Your task to perform on an android device: Go to Reddit.com Image 0: 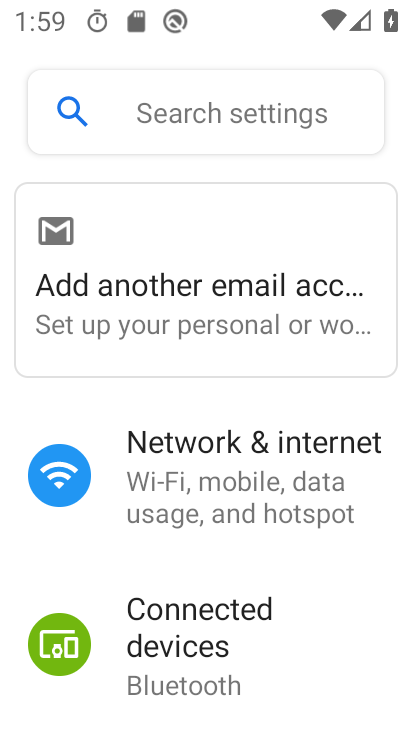
Step 0: press home button
Your task to perform on an android device: Go to Reddit.com Image 1: 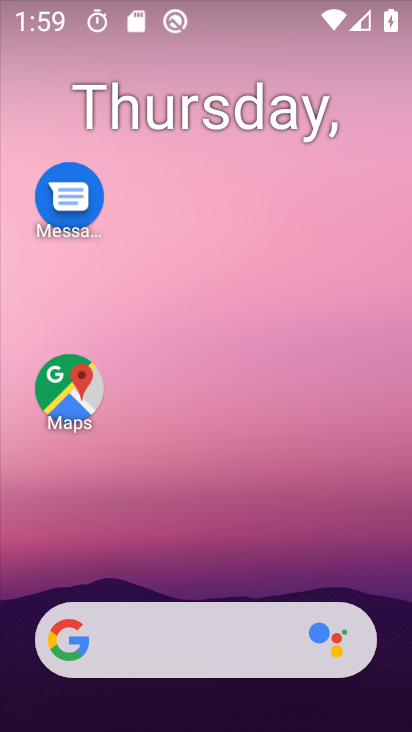
Step 1: drag from (138, 569) to (239, 160)
Your task to perform on an android device: Go to Reddit.com Image 2: 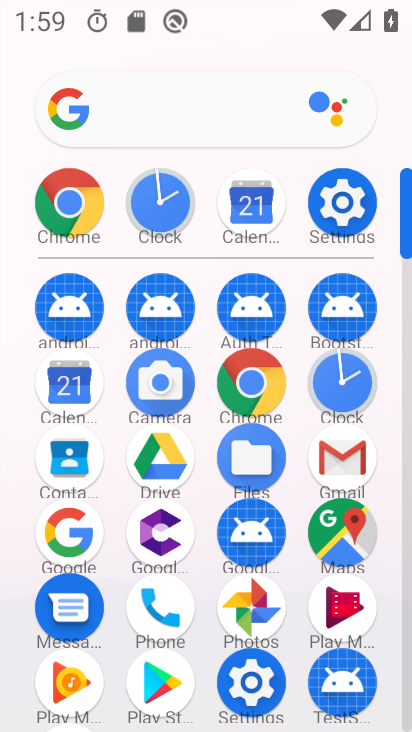
Step 2: click (66, 203)
Your task to perform on an android device: Go to Reddit.com Image 3: 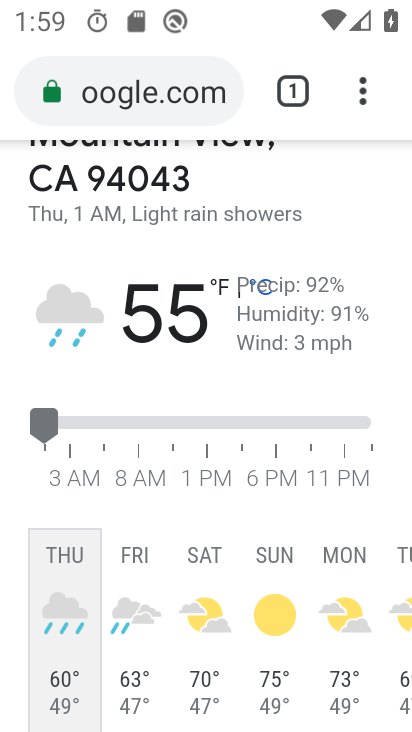
Step 3: click (158, 95)
Your task to perform on an android device: Go to Reddit.com Image 4: 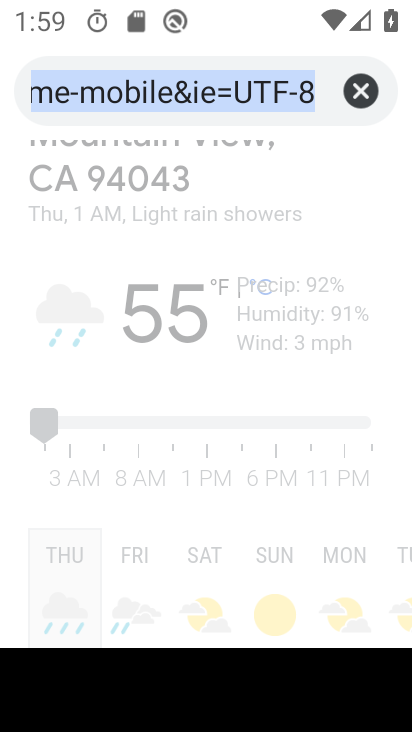
Step 4: type "Reddit.com"
Your task to perform on an android device: Go to Reddit.com Image 5: 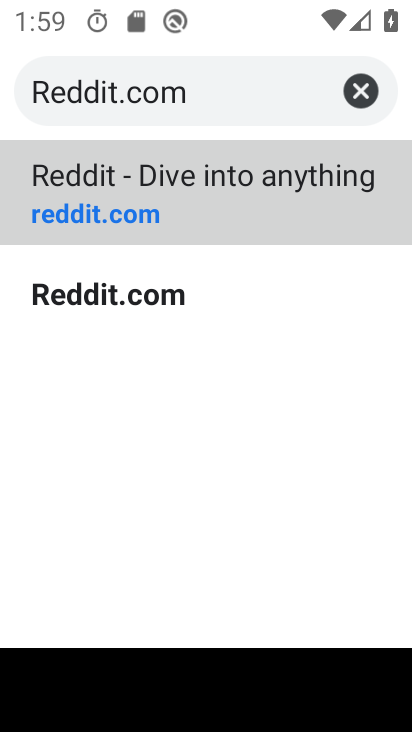
Step 5: click (112, 194)
Your task to perform on an android device: Go to Reddit.com Image 6: 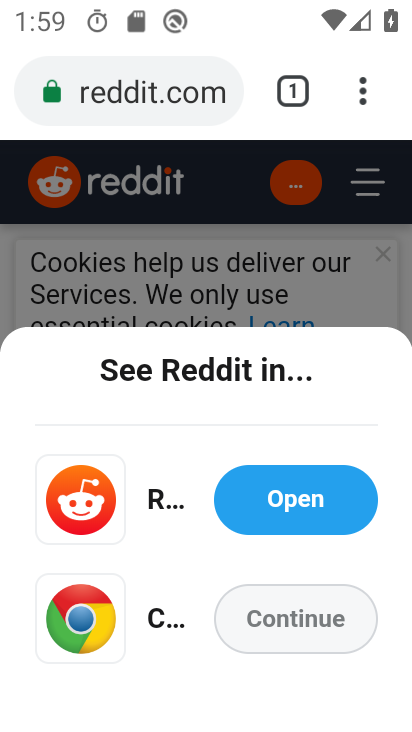
Step 6: task complete